Your task to perform on an android device: Show me recent news Image 0: 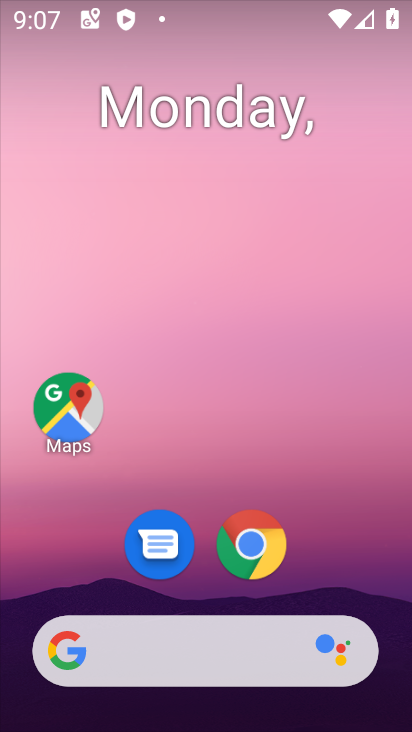
Step 0: drag from (1, 250) to (381, 262)
Your task to perform on an android device: Show me recent news Image 1: 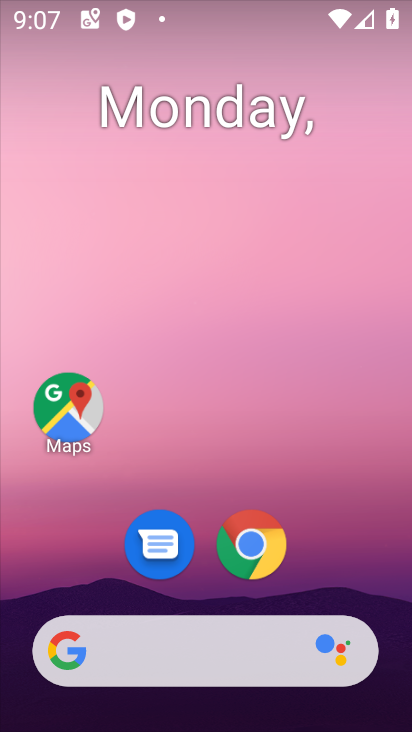
Step 1: task complete